Your task to perform on an android device: Open Amazon Image 0: 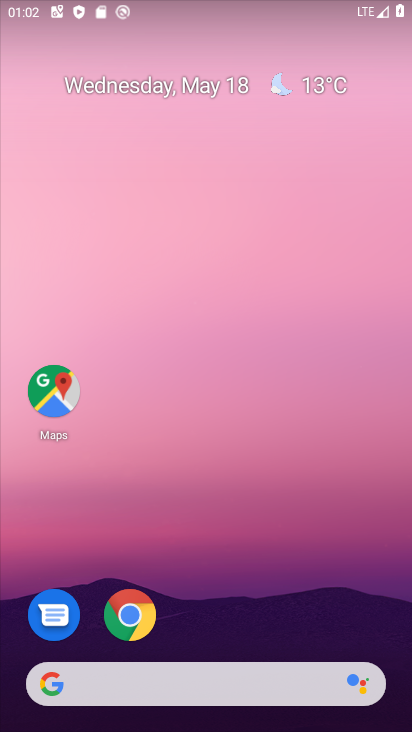
Step 0: click (130, 616)
Your task to perform on an android device: Open Amazon Image 1: 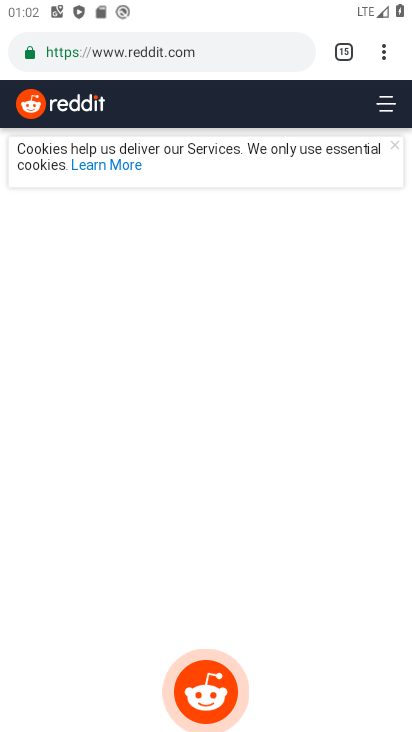
Step 1: drag from (382, 56) to (254, 101)
Your task to perform on an android device: Open Amazon Image 2: 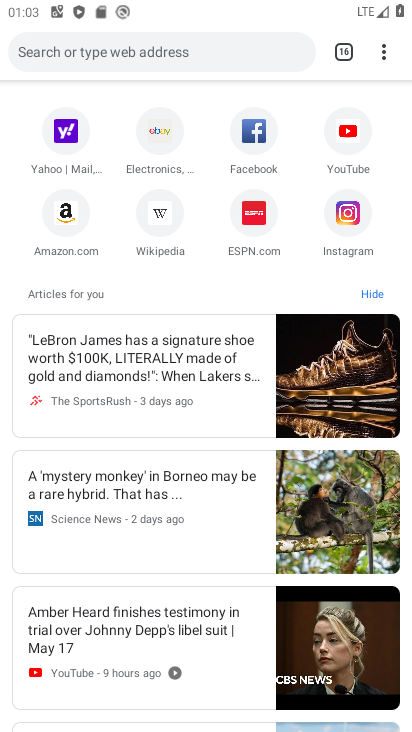
Step 2: click (61, 211)
Your task to perform on an android device: Open Amazon Image 3: 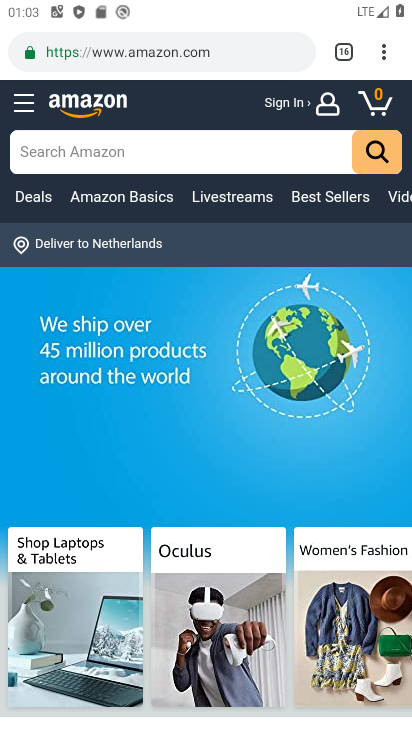
Step 3: task complete